Your task to perform on an android device: Show me popular games on the Play Store Image 0: 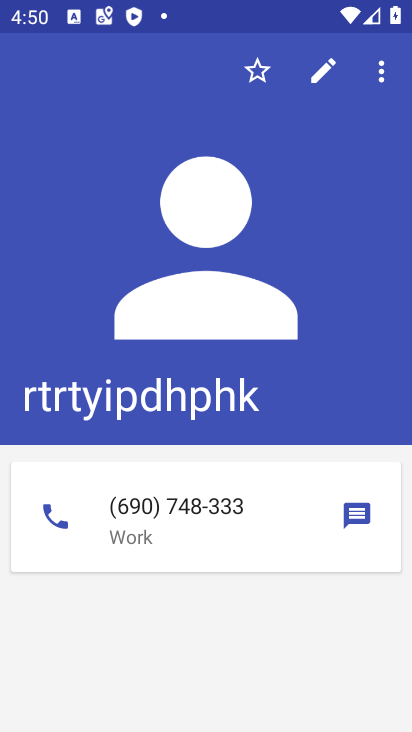
Step 0: press home button
Your task to perform on an android device: Show me popular games on the Play Store Image 1: 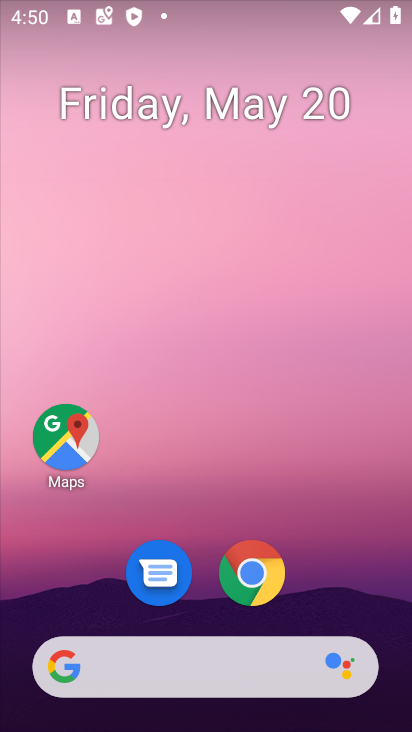
Step 1: drag from (396, 637) to (369, 62)
Your task to perform on an android device: Show me popular games on the Play Store Image 2: 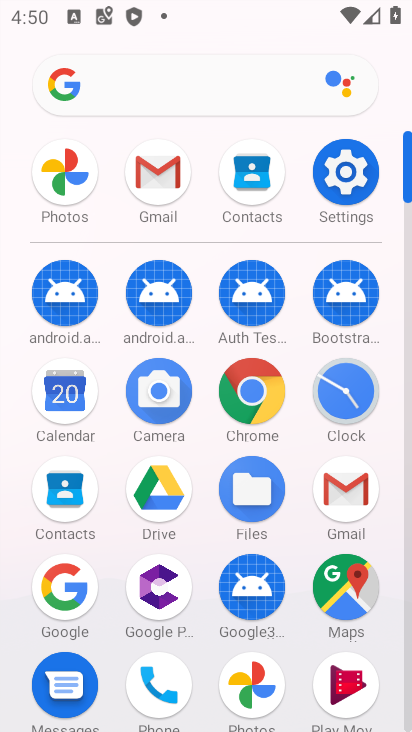
Step 2: click (407, 713)
Your task to perform on an android device: Show me popular games on the Play Store Image 3: 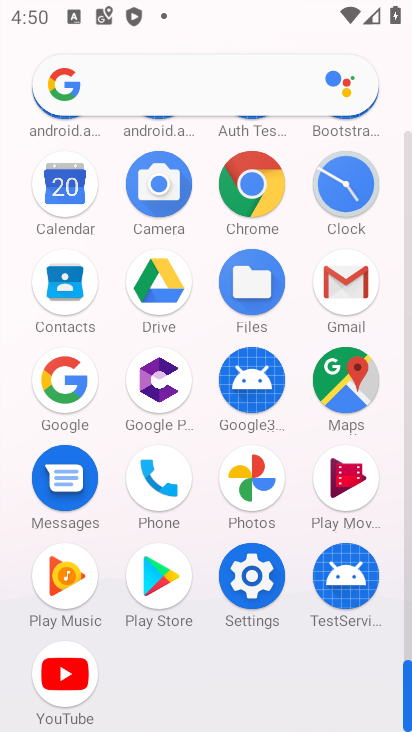
Step 3: click (166, 578)
Your task to perform on an android device: Show me popular games on the Play Store Image 4: 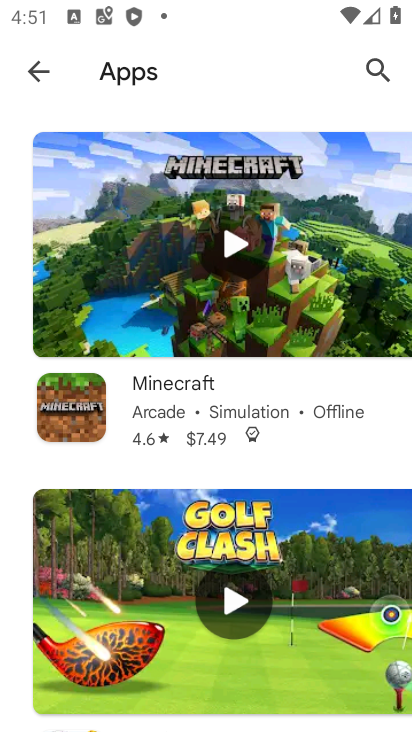
Step 4: task complete